Your task to perform on an android device: Do I have any events tomorrow? Image 0: 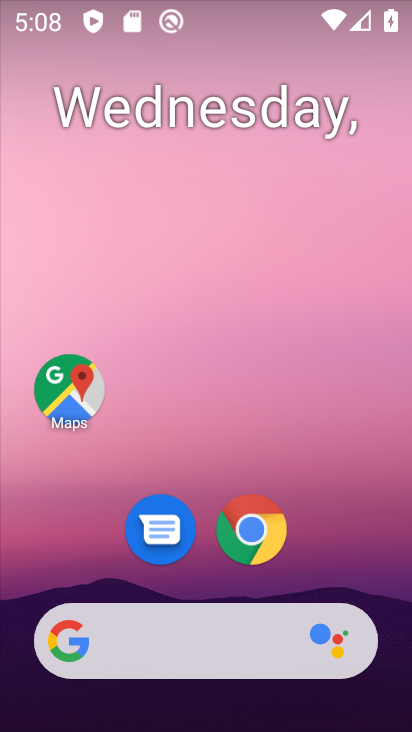
Step 0: drag from (355, 483) to (284, 77)
Your task to perform on an android device: Do I have any events tomorrow? Image 1: 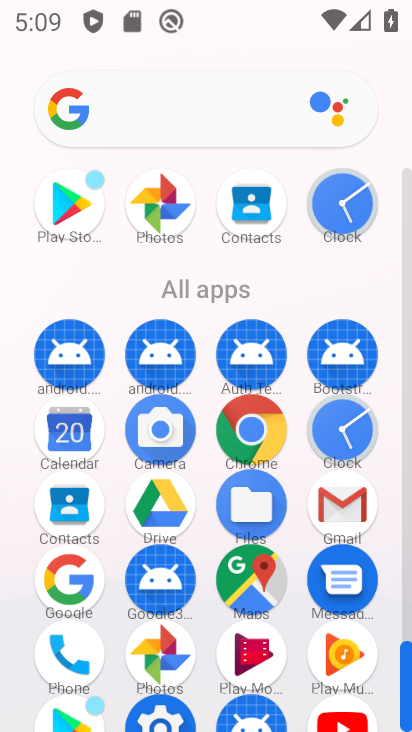
Step 1: drag from (9, 605) to (25, 357)
Your task to perform on an android device: Do I have any events tomorrow? Image 2: 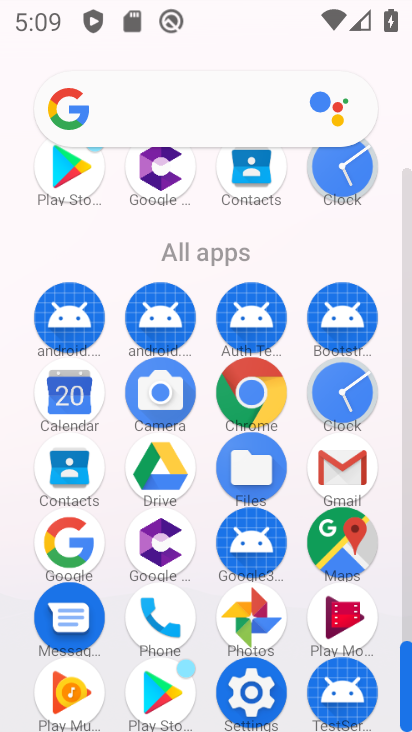
Step 2: click (69, 388)
Your task to perform on an android device: Do I have any events tomorrow? Image 3: 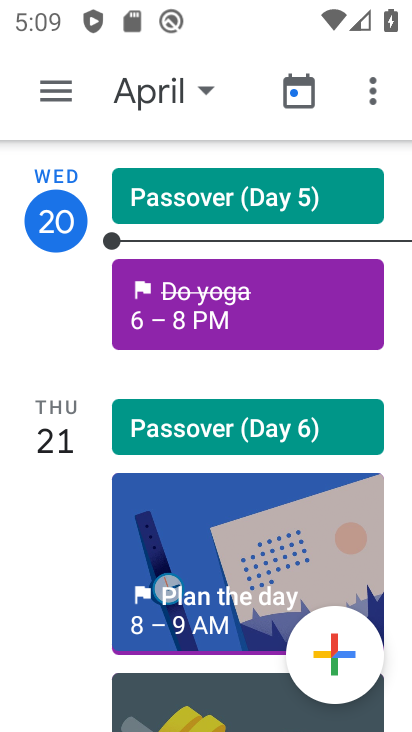
Step 3: click (67, 77)
Your task to perform on an android device: Do I have any events tomorrow? Image 4: 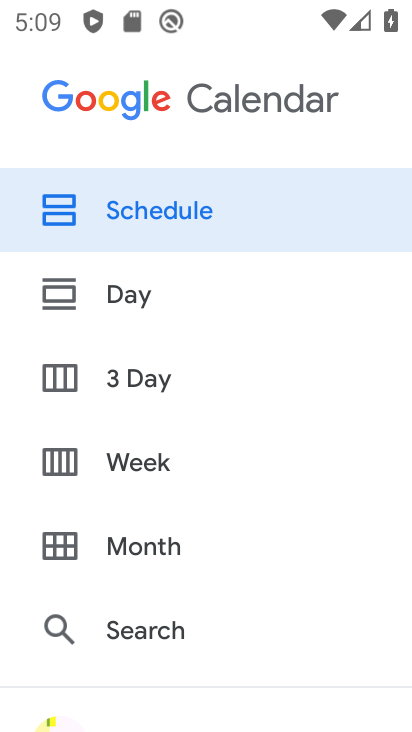
Step 4: drag from (212, 483) to (248, 271)
Your task to perform on an android device: Do I have any events tomorrow? Image 5: 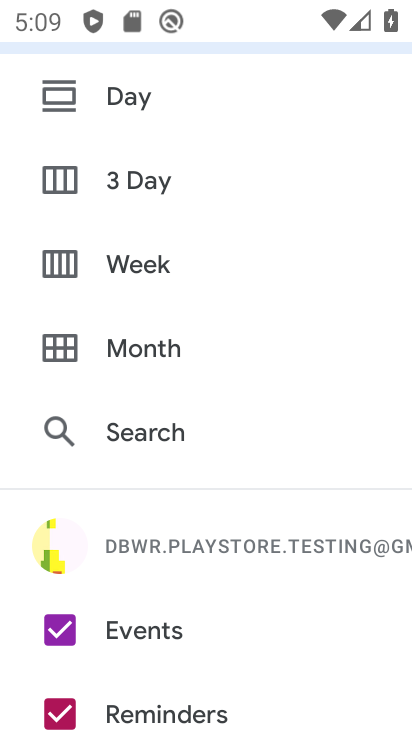
Step 5: drag from (240, 440) to (249, 180)
Your task to perform on an android device: Do I have any events tomorrow? Image 6: 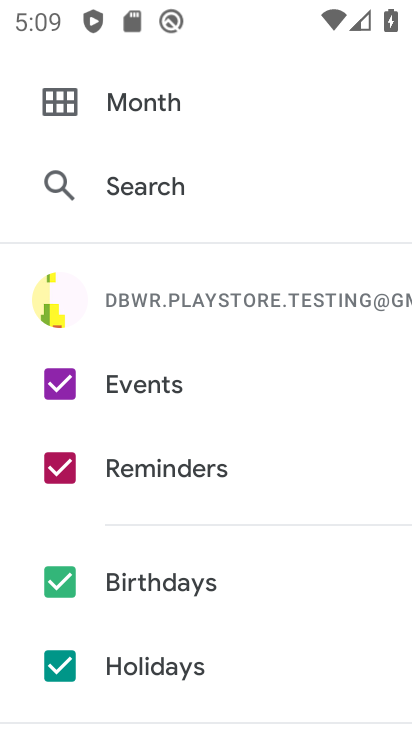
Step 6: click (51, 468)
Your task to perform on an android device: Do I have any events tomorrow? Image 7: 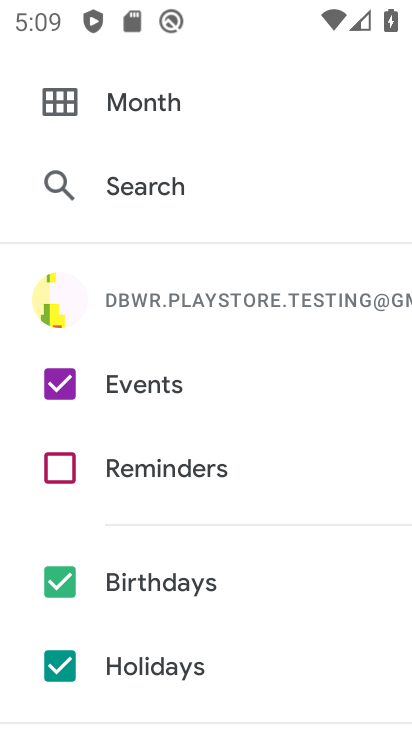
Step 7: click (54, 584)
Your task to perform on an android device: Do I have any events tomorrow? Image 8: 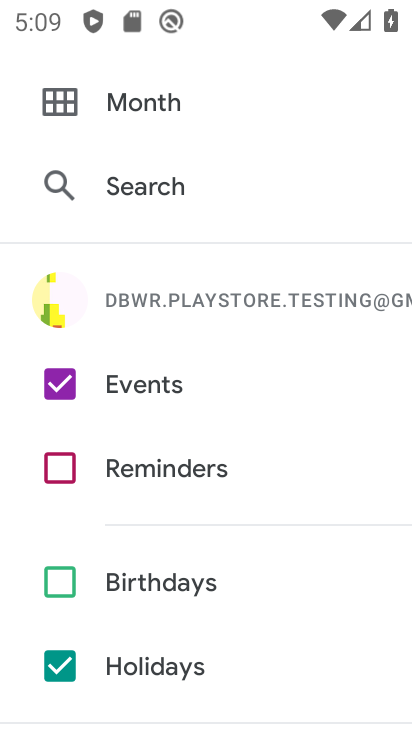
Step 8: click (56, 670)
Your task to perform on an android device: Do I have any events tomorrow? Image 9: 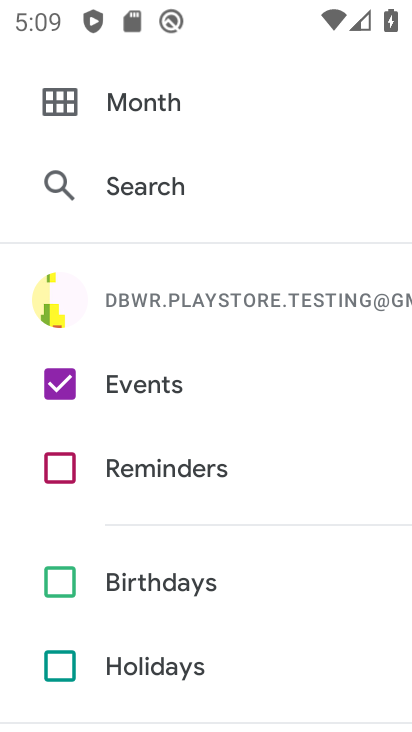
Step 9: drag from (387, 275) to (48, 262)
Your task to perform on an android device: Do I have any events tomorrow? Image 10: 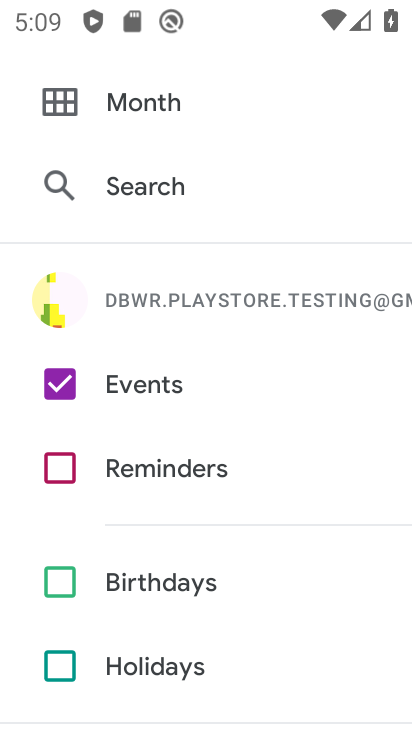
Step 10: drag from (390, 202) to (5, 232)
Your task to perform on an android device: Do I have any events tomorrow? Image 11: 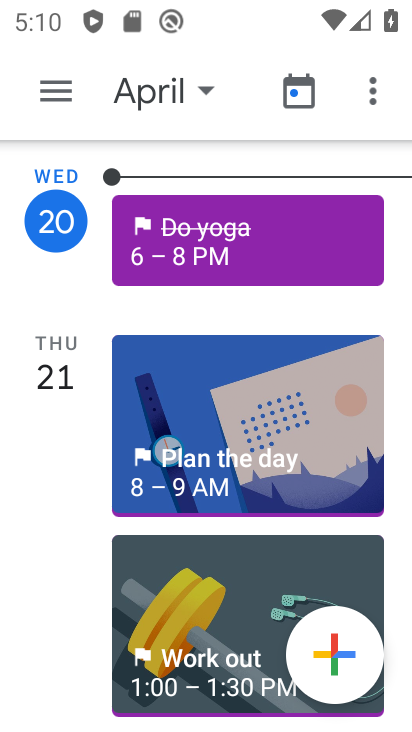
Step 11: click (60, 375)
Your task to perform on an android device: Do I have any events tomorrow? Image 12: 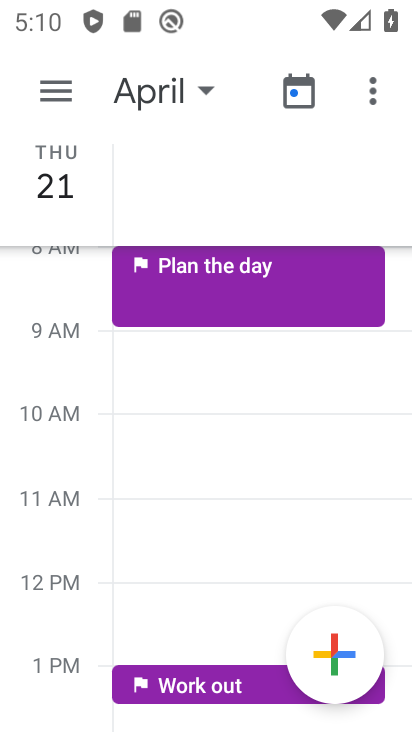
Step 12: task complete